Your task to perform on an android device: Open sound settings Image 0: 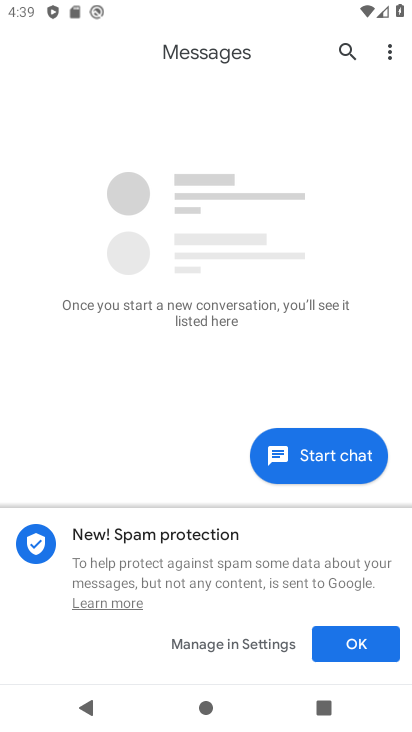
Step 0: press back button
Your task to perform on an android device: Open sound settings Image 1: 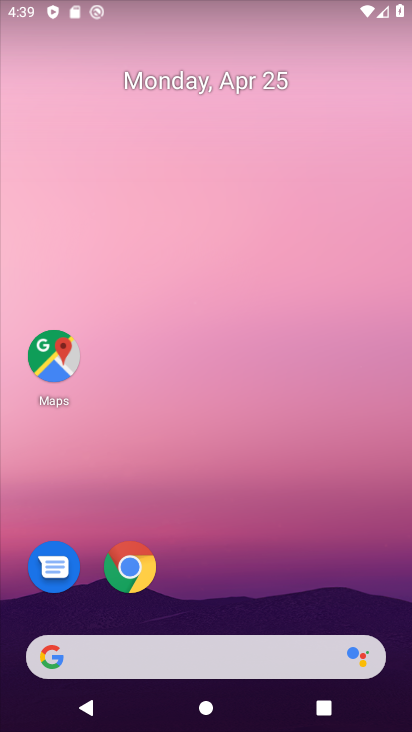
Step 1: drag from (260, 572) to (337, 29)
Your task to perform on an android device: Open sound settings Image 2: 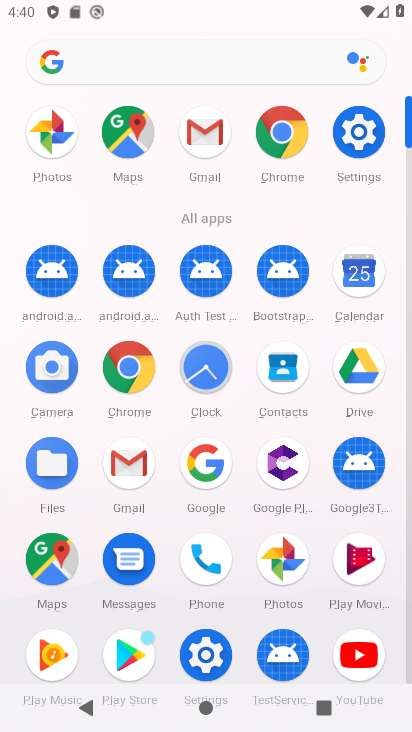
Step 2: click (362, 132)
Your task to perform on an android device: Open sound settings Image 3: 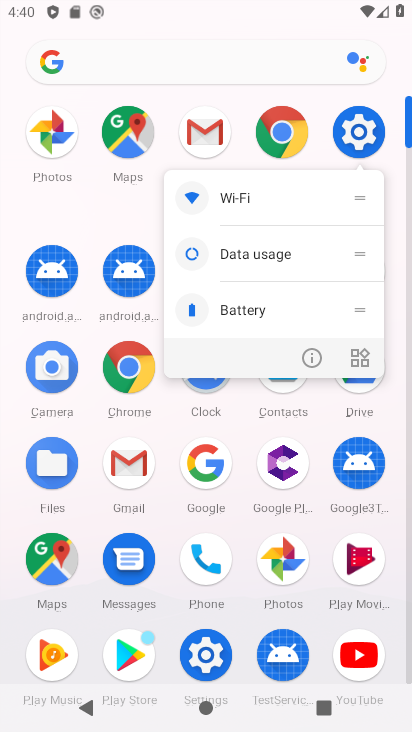
Step 3: click (363, 131)
Your task to perform on an android device: Open sound settings Image 4: 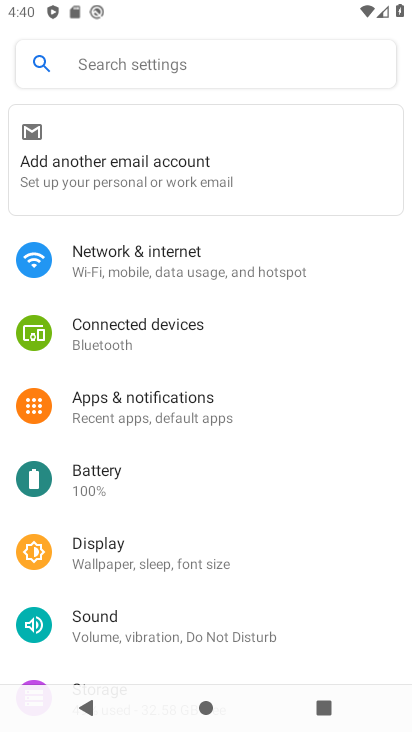
Step 4: click (111, 615)
Your task to perform on an android device: Open sound settings Image 5: 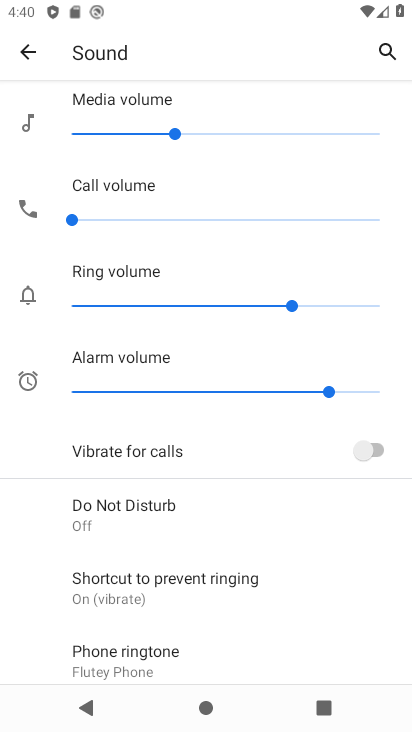
Step 5: task complete